Your task to perform on an android device: Open battery settings Image 0: 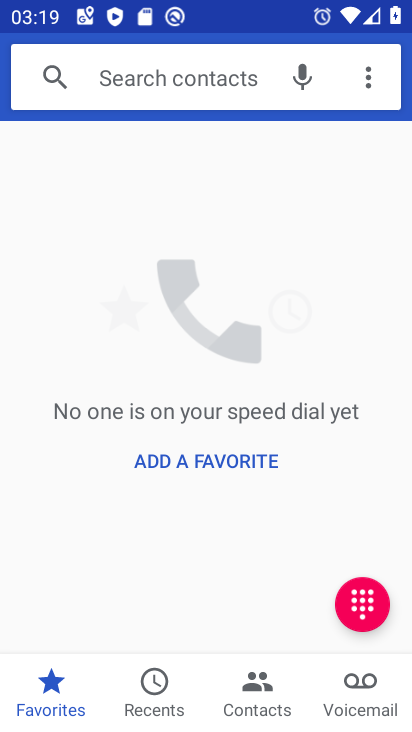
Step 0: press home button
Your task to perform on an android device: Open battery settings Image 1: 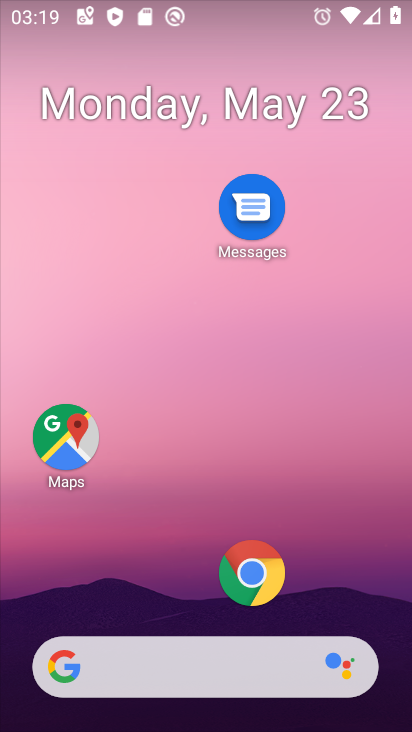
Step 1: drag from (327, 665) to (326, 20)
Your task to perform on an android device: Open battery settings Image 2: 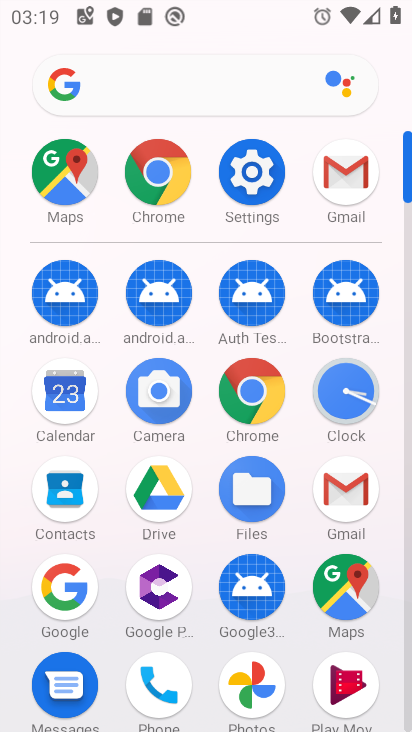
Step 2: click (257, 152)
Your task to perform on an android device: Open battery settings Image 3: 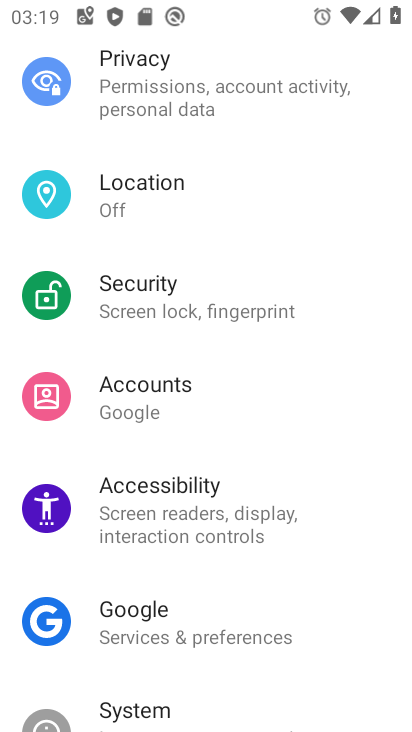
Step 3: drag from (185, 148) to (222, 724)
Your task to perform on an android device: Open battery settings Image 4: 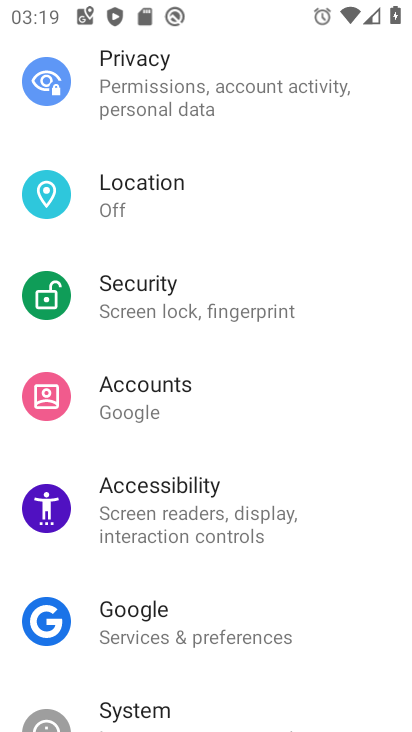
Step 4: drag from (206, 185) to (159, 617)
Your task to perform on an android device: Open battery settings Image 5: 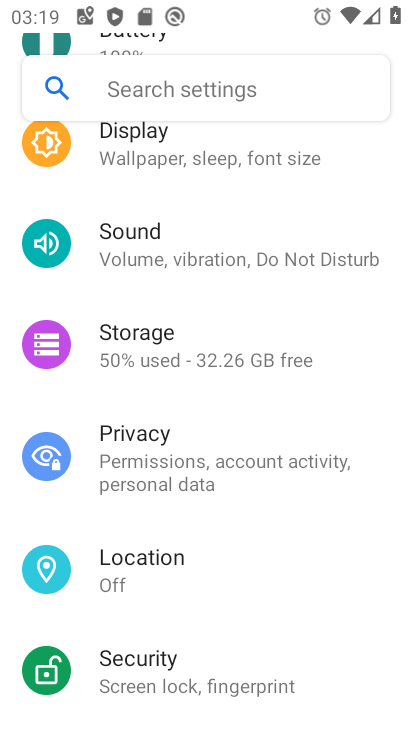
Step 5: drag from (198, 241) to (188, 667)
Your task to perform on an android device: Open battery settings Image 6: 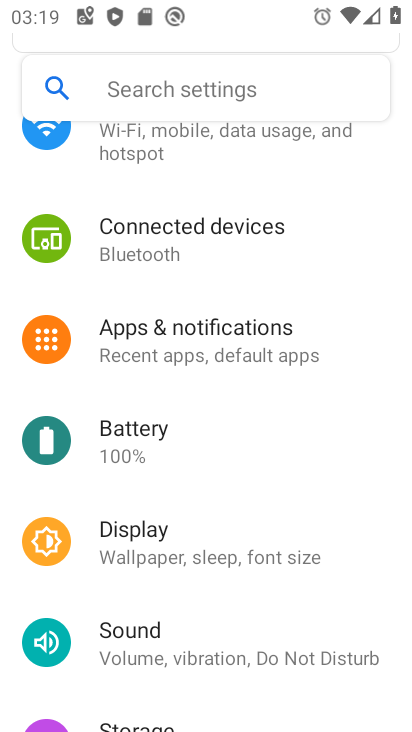
Step 6: click (189, 441)
Your task to perform on an android device: Open battery settings Image 7: 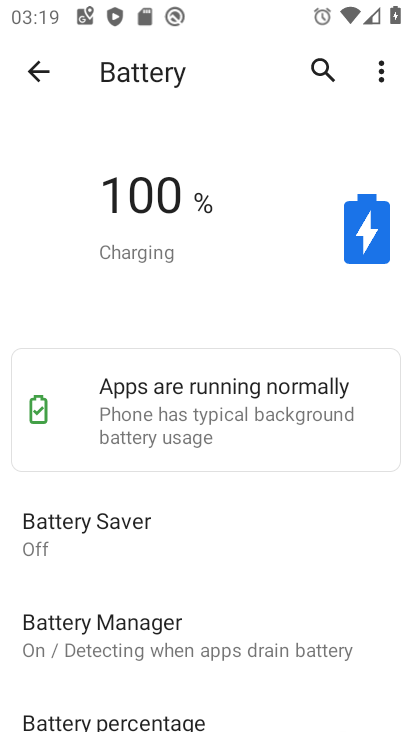
Step 7: task complete